Your task to perform on an android device: toggle data saver in the chrome app Image 0: 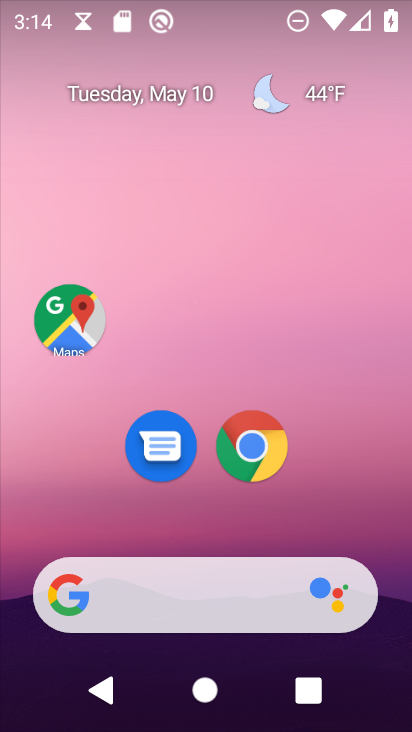
Step 0: drag from (387, 456) to (370, 98)
Your task to perform on an android device: toggle data saver in the chrome app Image 1: 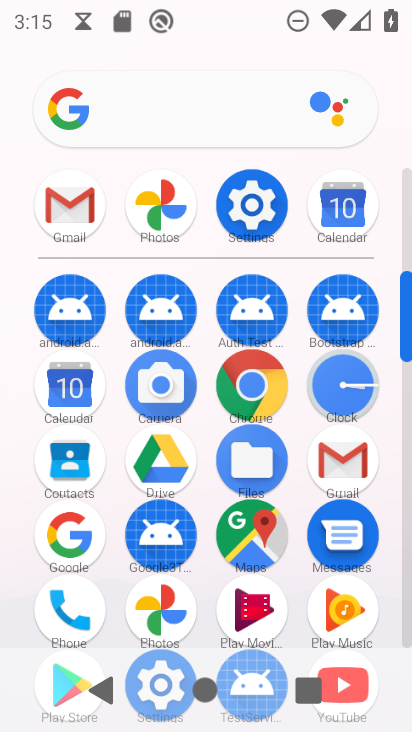
Step 1: click (264, 374)
Your task to perform on an android device: toggle data saver in the chrome app Image 2: 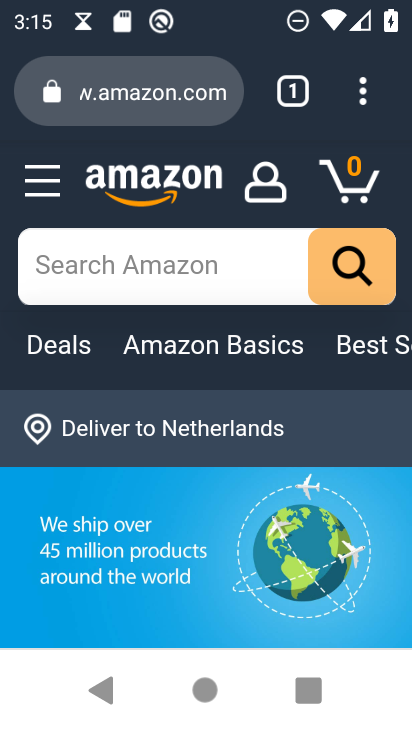
Step 2: drag from (366, 91) to (111, 475)
Your task to perform on an android device: toggle data saver in the chrome app Image 3: 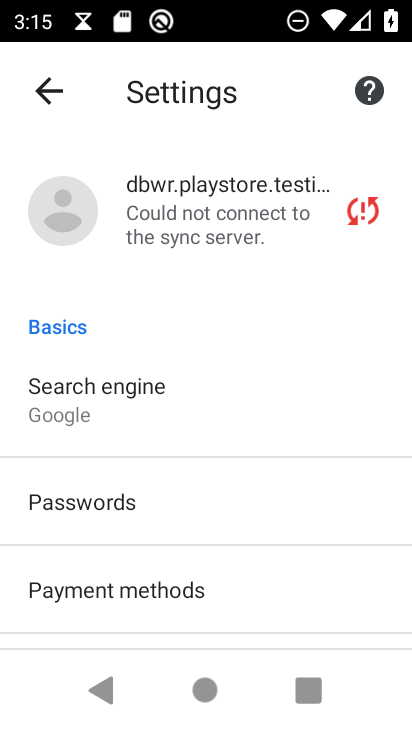
Step 3: drag from (206, 596) to (159, 142)
Your task to perform on an android device: toggle data saver in the chrome app Image 4: 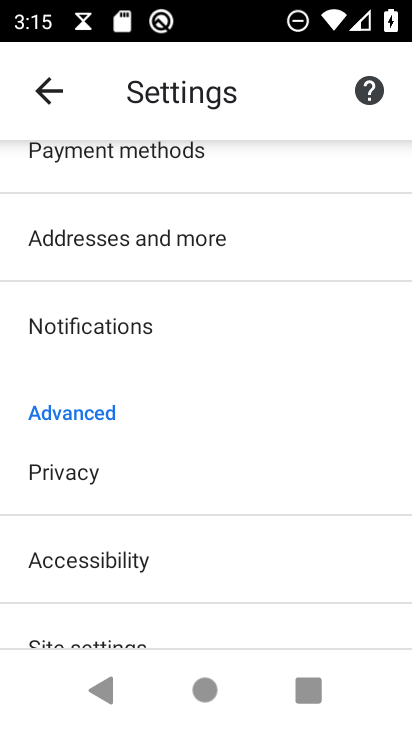
Step 4: drag from (179, 537) to (123, 193)
Your task to perform on an android device: toggle data saver in the chrome app Image 5: 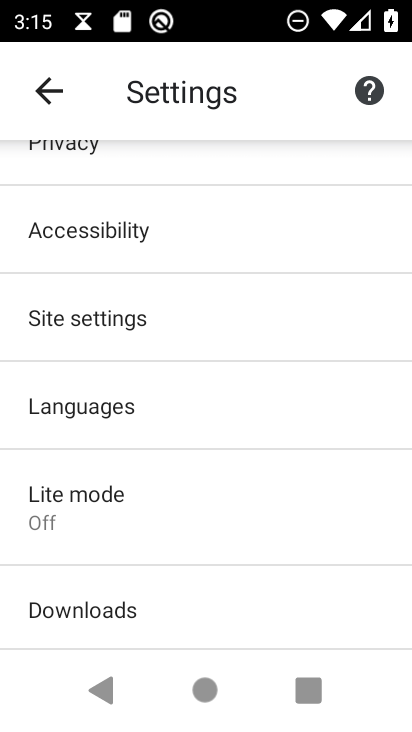
Step 5: click (165, 524)
Your task to perform on an android device: toggle data saver in the chrome app Image 6: 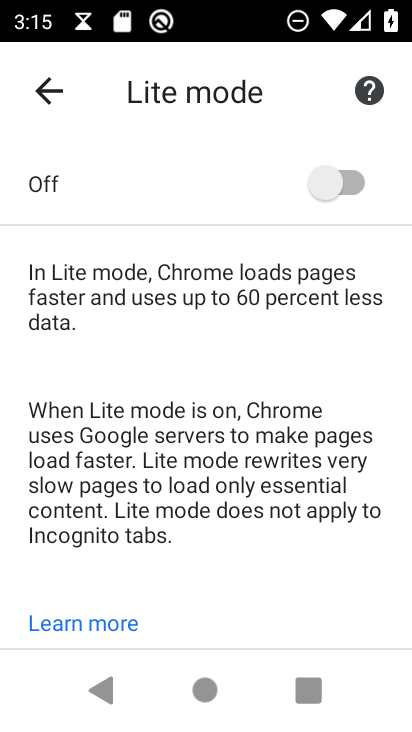
Step 6: drag from (175, 544) to (193, 241)
Your task to perform on an android device: toggle data saver in the chrome app Image 7: 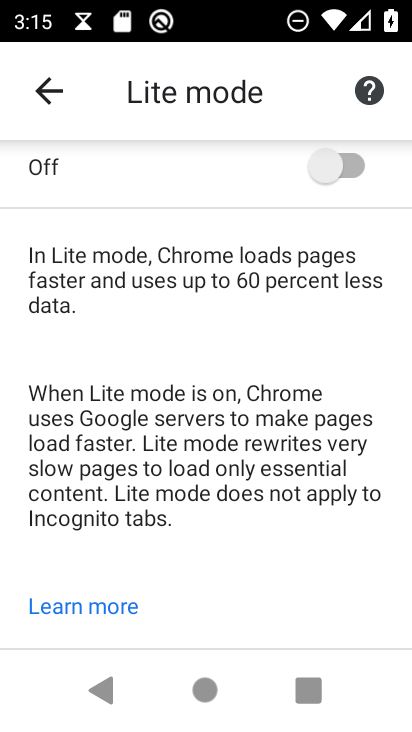
Step 7: click (360, 168)
Your task to perform on an android device: toggle data saver in the chrome app Image 8: 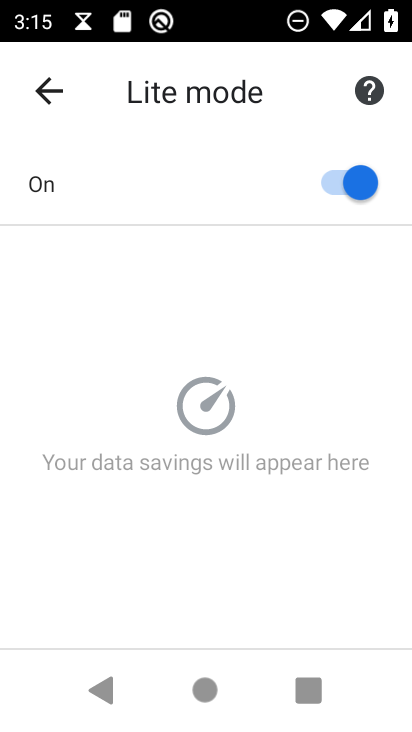
Step 8: task complete